Your task to perform on an android device: See recent photos Image 0: 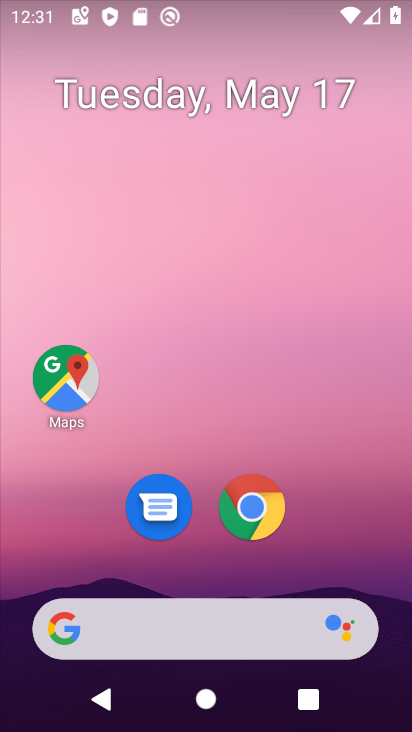
Step 0: drag from (393, 570) to (346, 231)
Your task to perform on an android device: See recent photos Image 1: 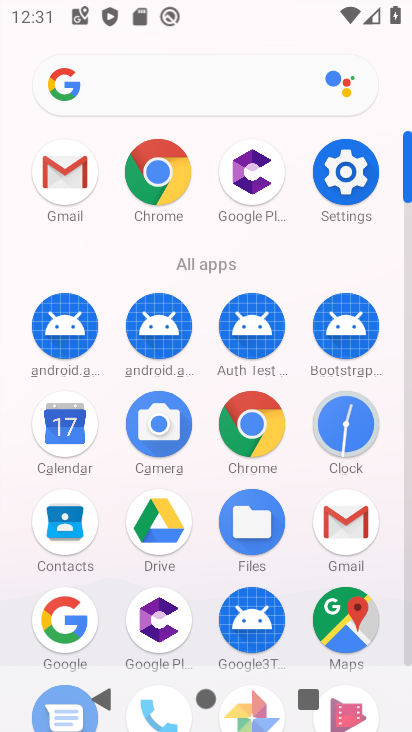
Step 1: click (408, 647)
Your task to perform on an android device: See recent photos Image 2: 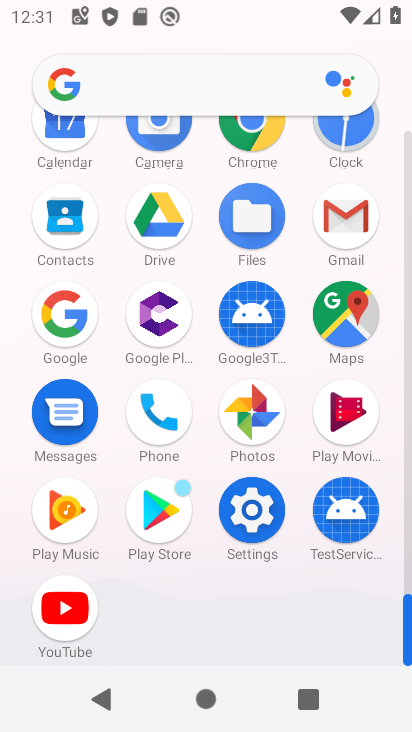
Step 2: click (255, 409)
Your task to perform on an android device: See recent photos Image 3: 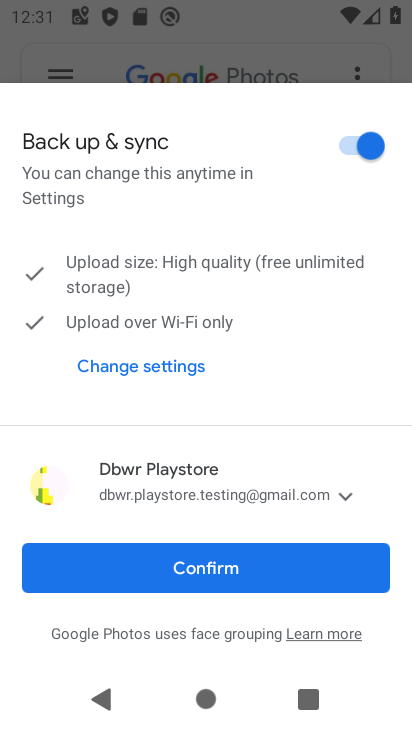
Step 3: click (231, 563)
Your task to perform on an android device: See recent photos Image 4: 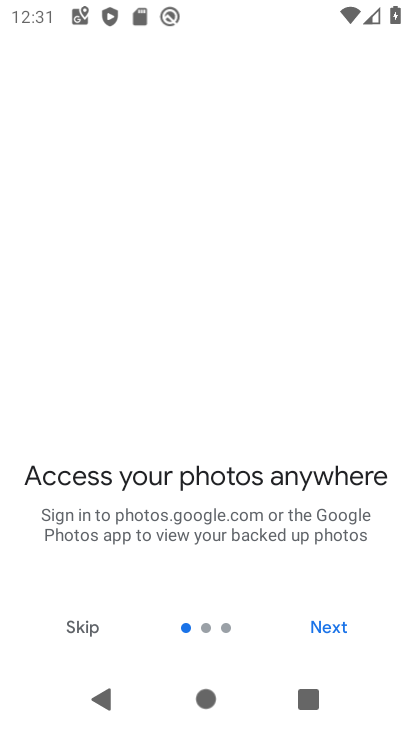
Step 4: click (326, 625)
Your task to perform on an android device: See recent photos Image 5: 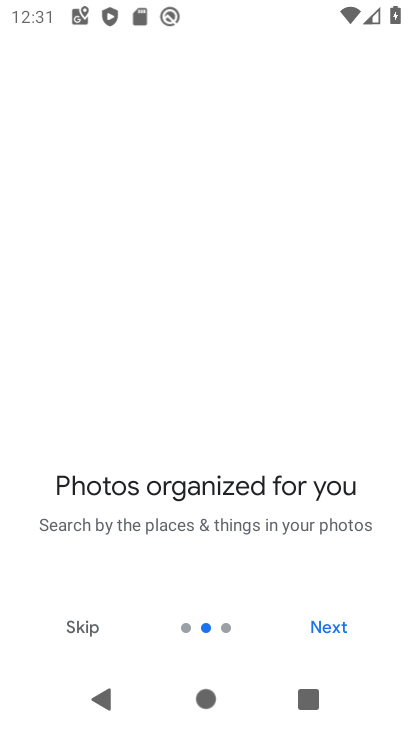
Step 5: click (326, 625)
Your task to perform on an android device: See recent photos Image 6: 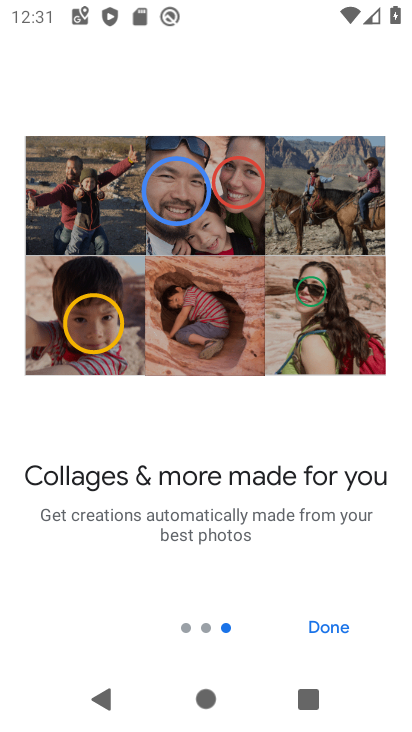
Step 6: click (326, 625)
Your task to perform on an android device: See recent photos Image 7: 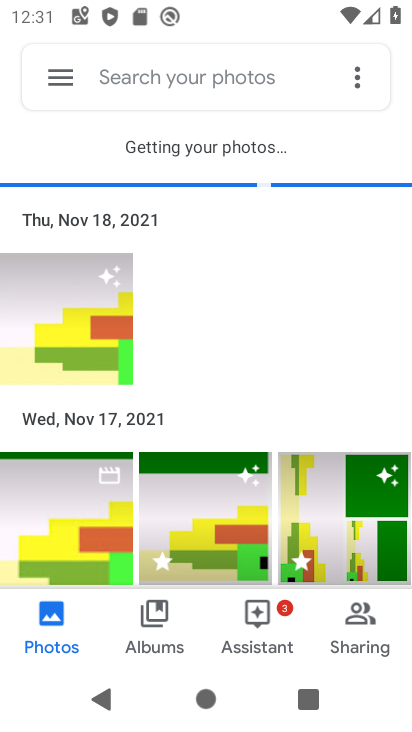
Step 7: task complete